Your task to perform on an android device: turn off improve location accuracy Image 0: 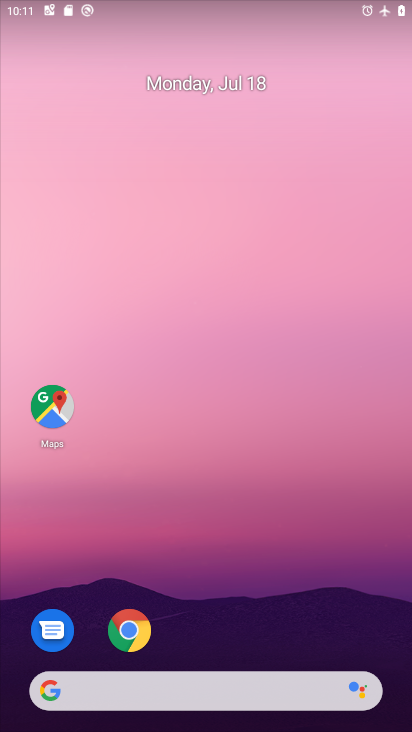
Step 0: drag from (201, 633) to (183, 214)
Your task to perform on an android device: turn off improve location accuracy Image 1: 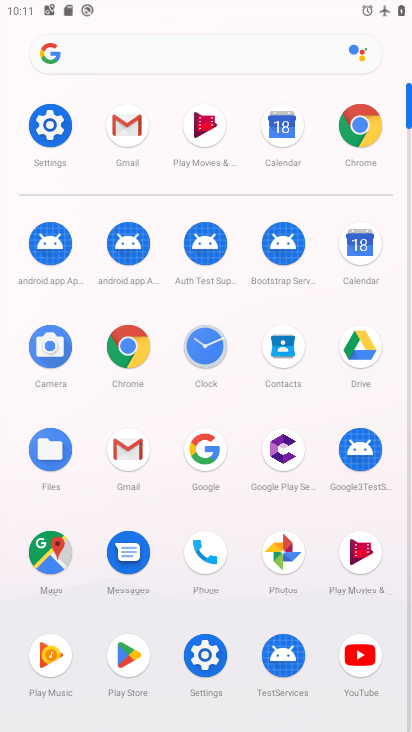
Step 1: click (45, 140)
Your task to perform on an android device: turn off improve location accuracy Image 2: 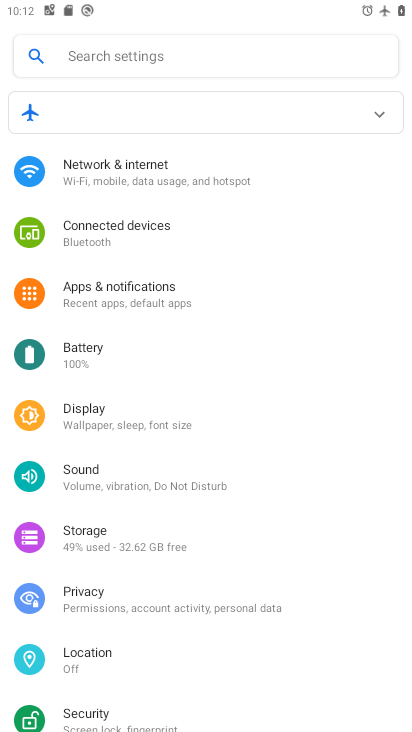
Step 2: click (136, 659)
Your task to perform on an android device: turn off improve location accuracy Image 3: 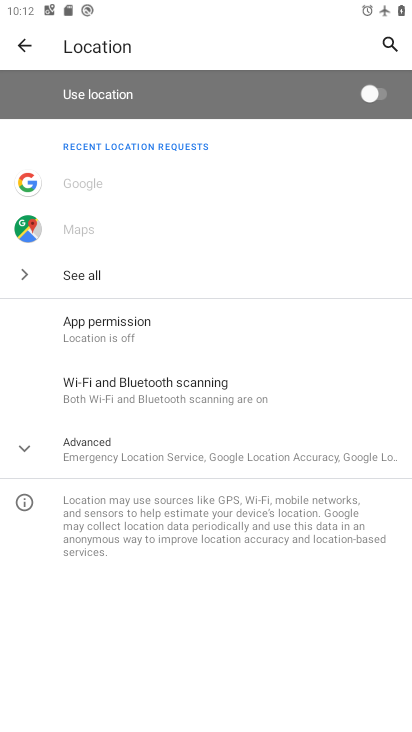
Step 3: click (176, 440)
Your task to perform on an android device: turn off improve location accuracy Image 4: 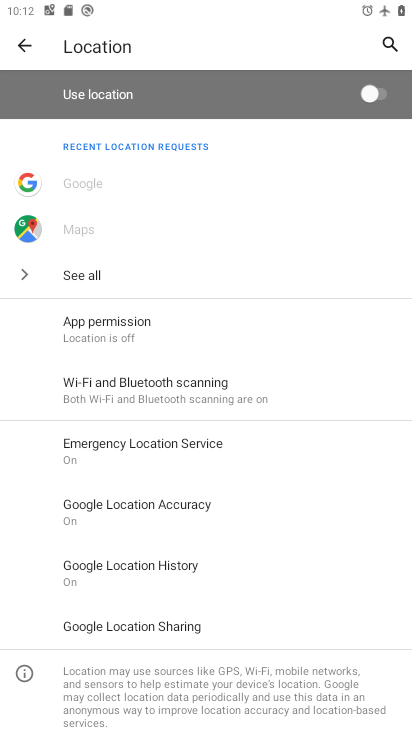
Step 4: click (228, 506)
Your task to perform on an android device: turn off improve location accuracy Image 5: 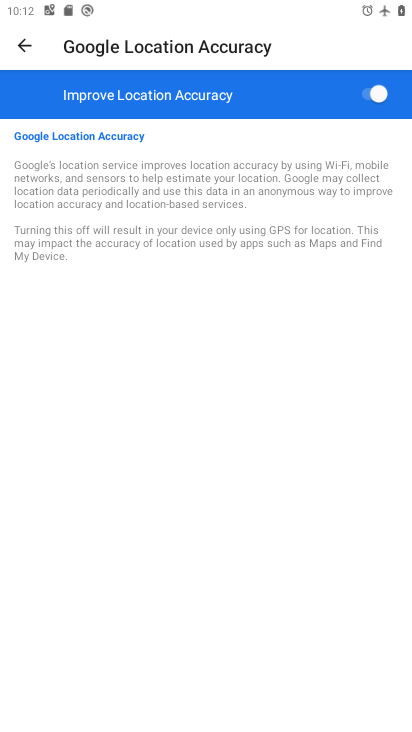
Step 5: click (375, 88)
Your task to perform on an android device: turn off improve location accuracy Image 6: 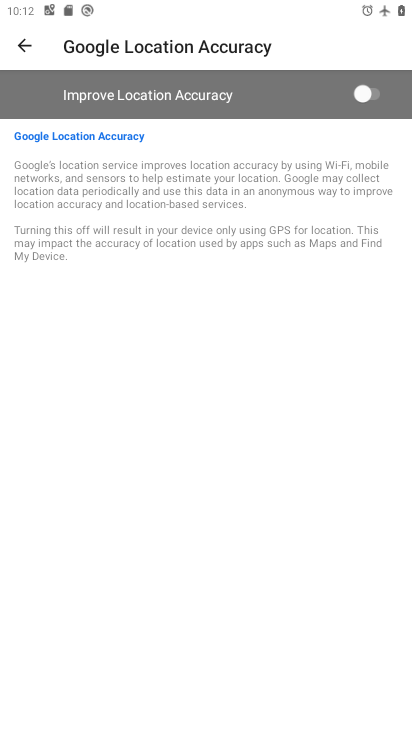
Step 6: task complete